Your task to perform on an android device: What's on my calendar today? Image 0: 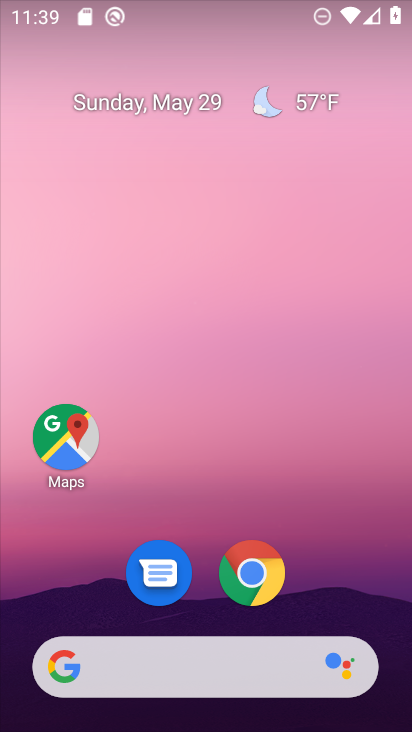
Step 0: drag from (306, 689) to (368, 116)
Your task to perform on an android device: What's on my calendar today? Image 1: 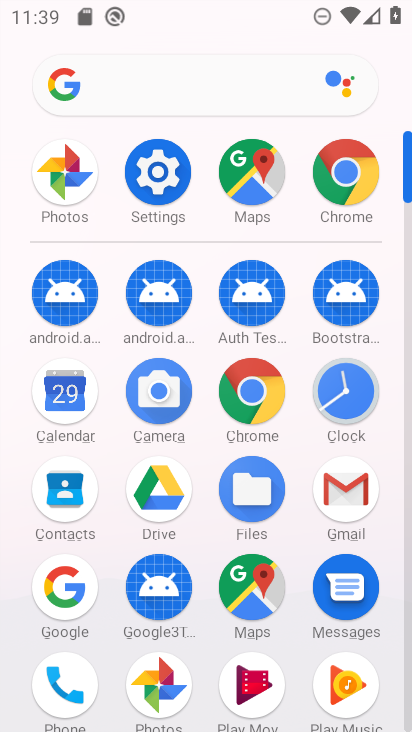
Step 1: click (60, 374)
Your task to perform on an android device: What's on my calendar today? Image 2: 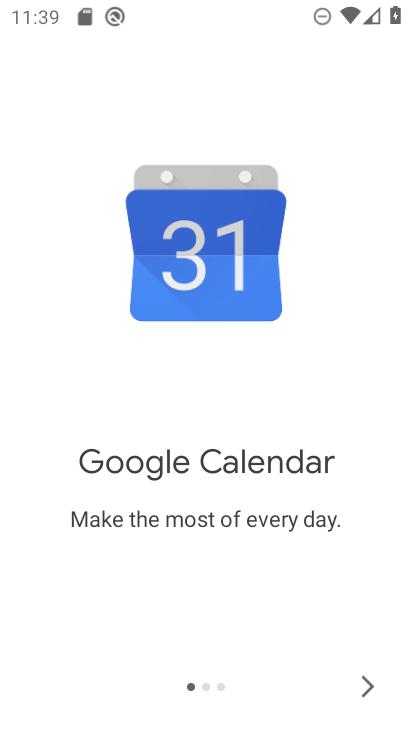
Step 2: click (356, 687)
Your task to perform on an android device: What's on my calendar today? Image 3: 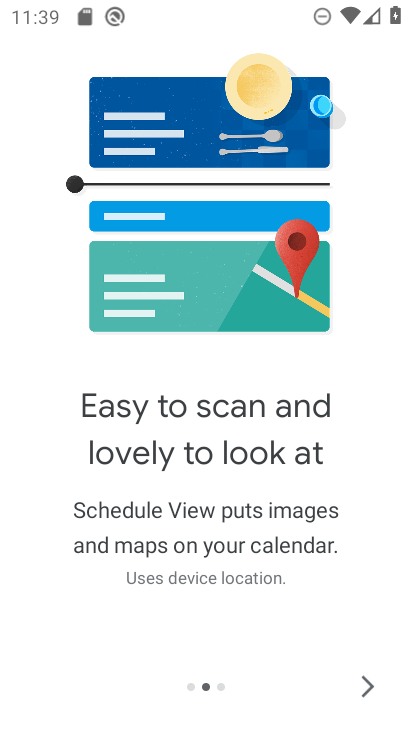
Step 3: click (376, 691)
Your task to perform on an android device: What's on my calendar today? Image 4: 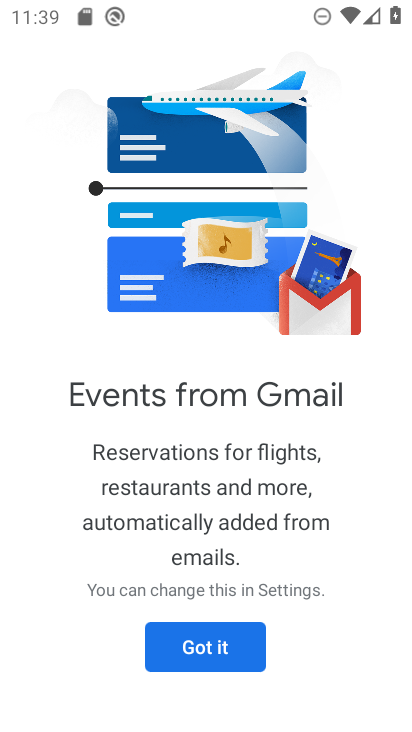
Step 4: click (246, 651)
Your task to perform on an android device: What's on my calendar today? Image 5: 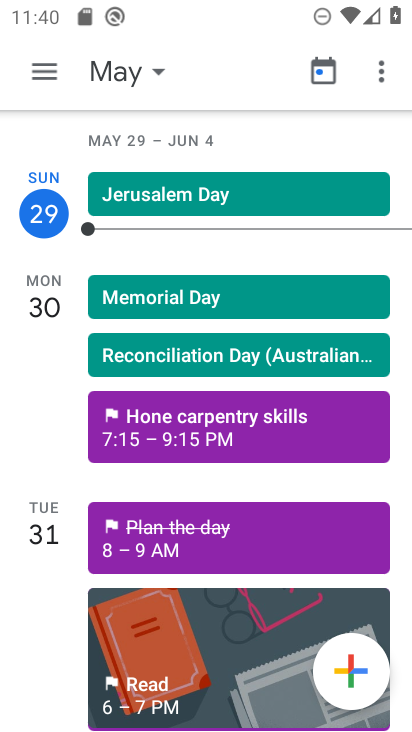
Step 5: click (163, 61)
Your task to perform on an android device: What's on my calendar today? Image 6: 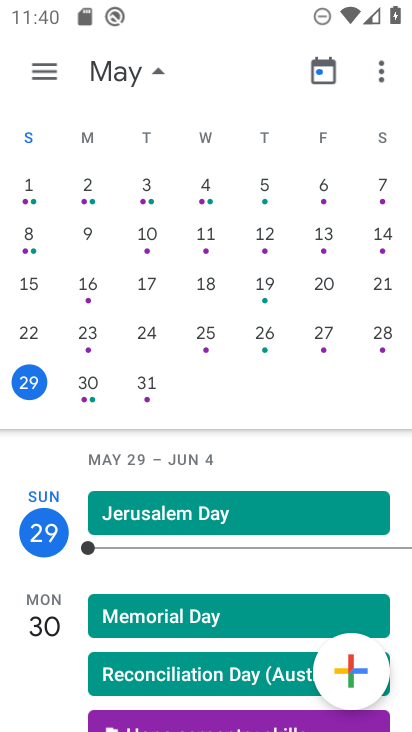
Step 6: click (84, 377)
Your task to perform on an android device: What's on my calendar today? Image 7: 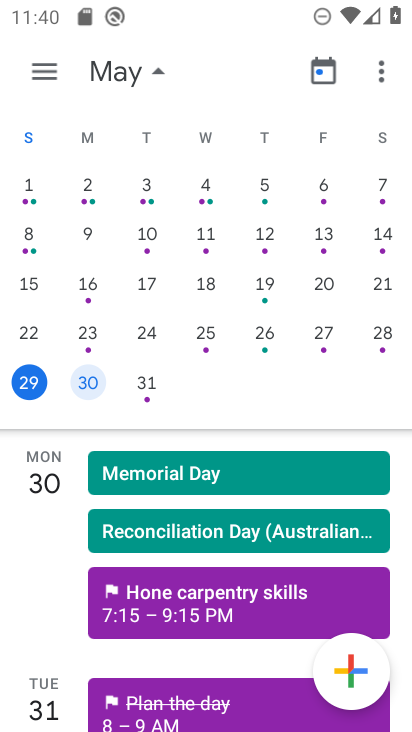
Step 7: task complete